Your task to perform on an android device: turn on wifi Image 0: 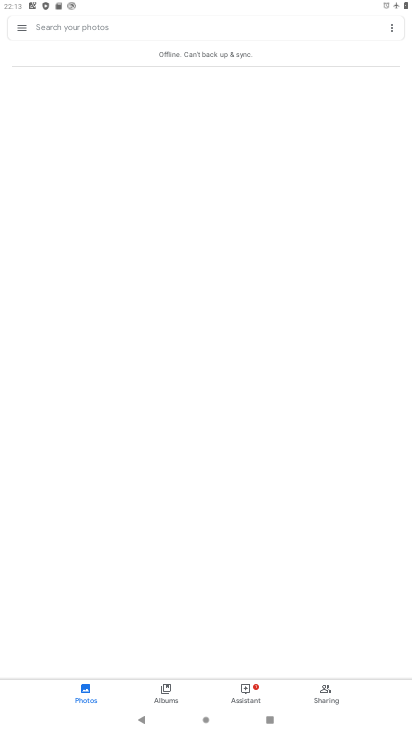
Step 0: press home button
Your task to perform on an android device: turn on wifi Image 1: 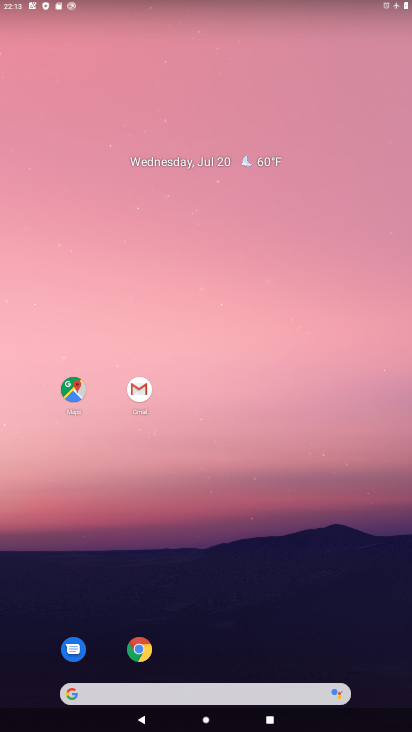
Step 1: drag from (404, 608) to (381, 162)
Your task to perform on an android device: turn on wifi Image 2: 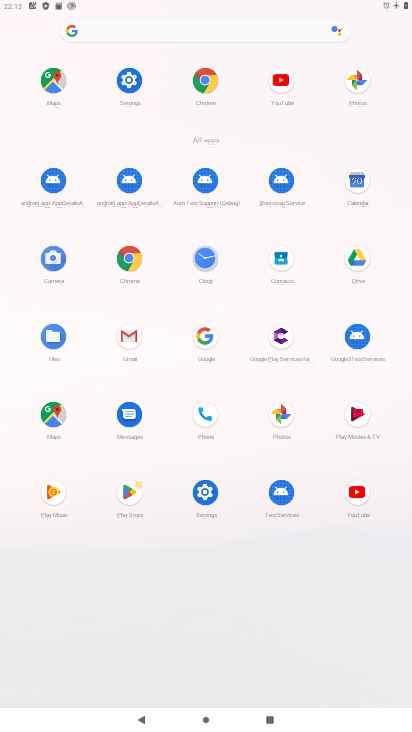
Step 2: click (121, 82)
Your task to perform on an android device: turn on wifi Image 3: 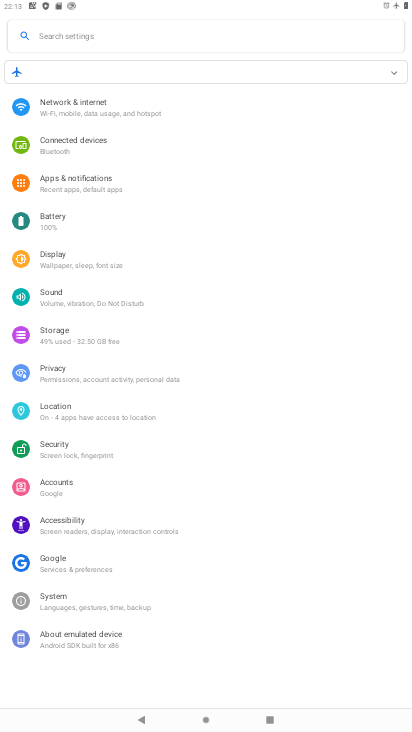
Step 3: click (111, 104)
Your task to perform on an android device: turn on wifi Image 4: 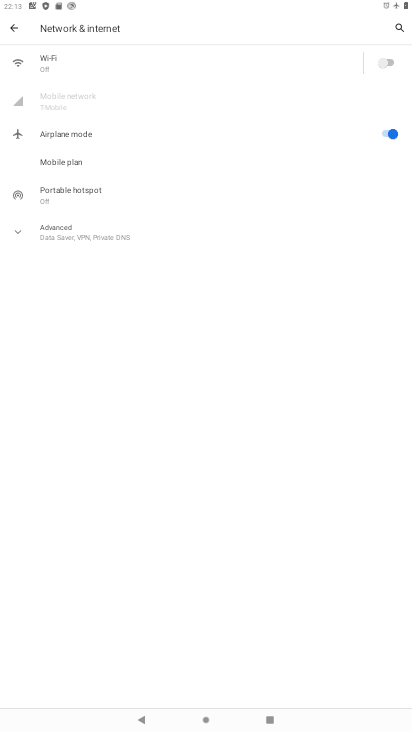
Step 4: click (395, 61)
Your task to perform on an android device: turn on wifi Image 5: 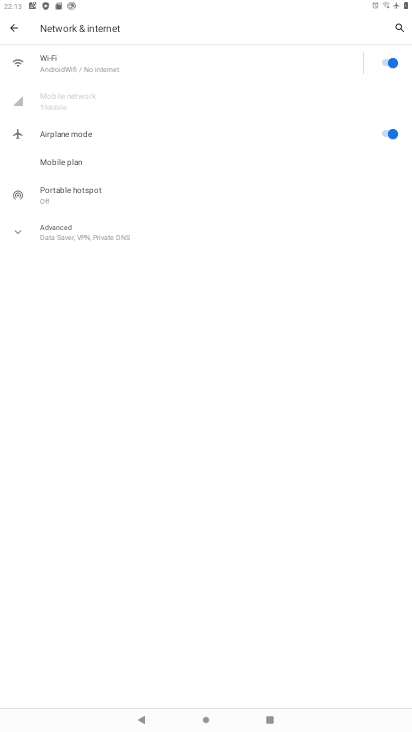
Step 5: click (383, 132)
Your task to perform on an android device: turn on wifi Image 6: 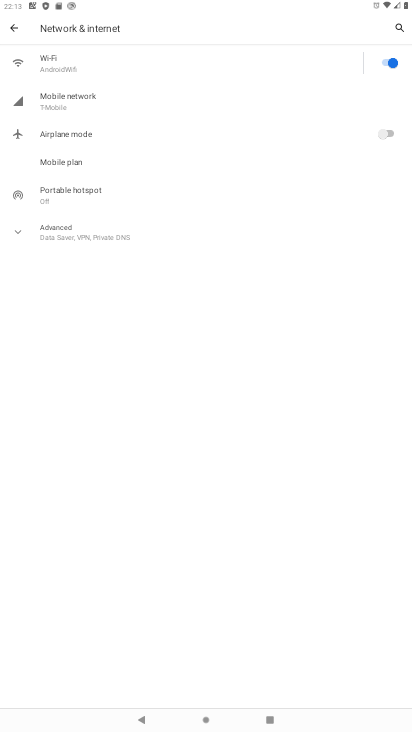
Step 6: task complete